Your task to perform on an android device: turn off location Image 0: 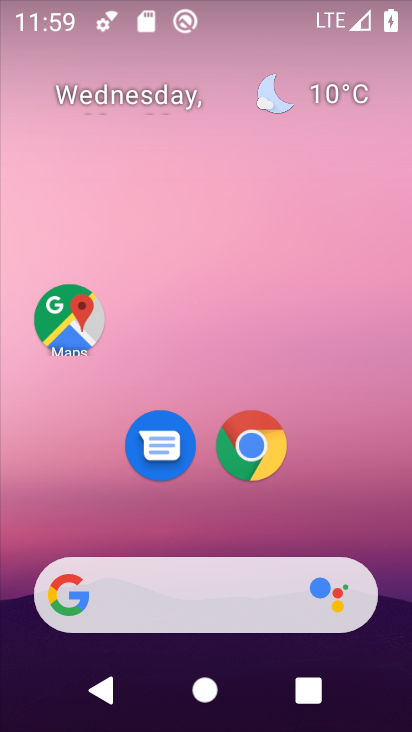
Step 0: drag from (186, 548) to (225, 99)
Your task to perform on an android device: turn off location Image 1: 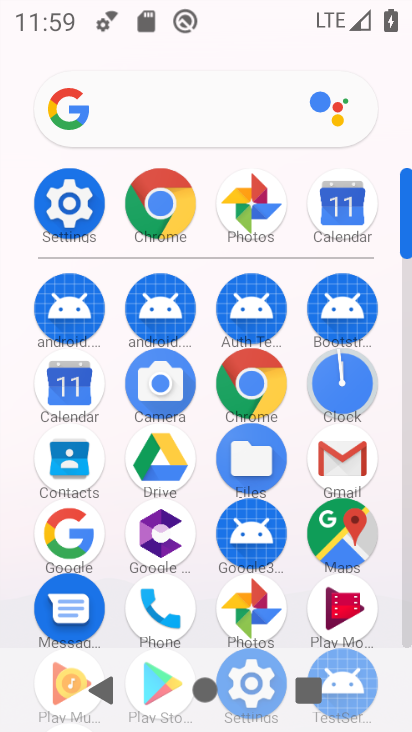
Step 1: click (74, 196)
Your task to perform on an android device: turn off location Image 2: 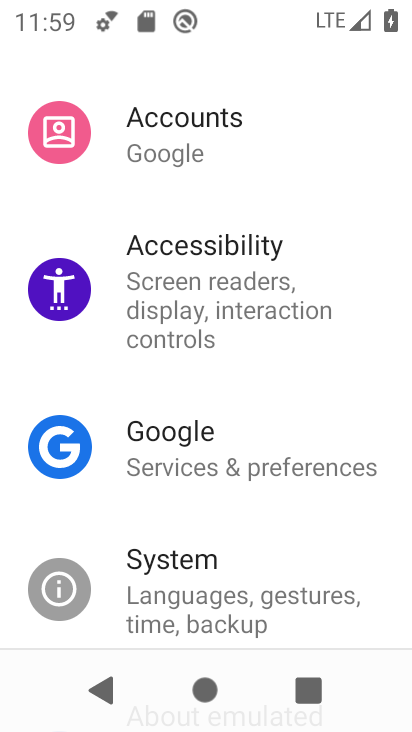
Step 2: drag from (191, 546) to (246, 95)
Your task to perform on an android device: turn off location Image 3: 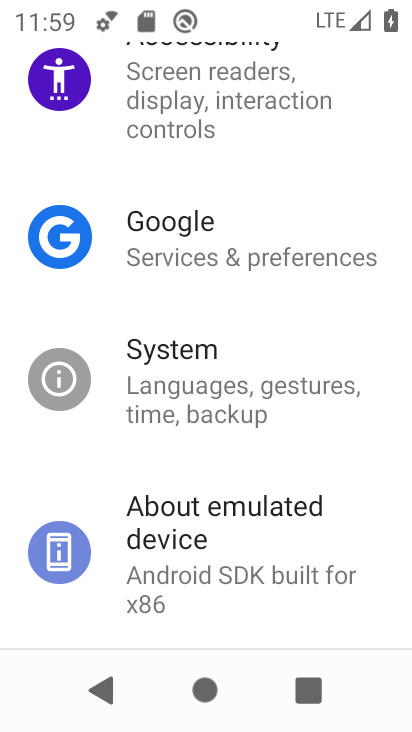
Step 3: drag from (257, 167) to (224, 692)
Your task to perform on an android device: turn off location Image 4: 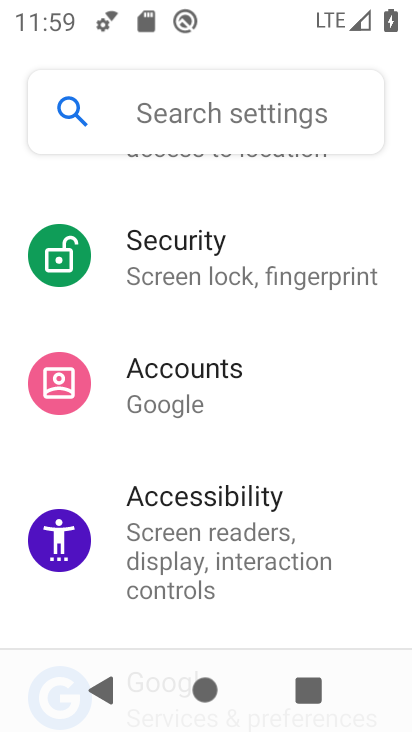
Step 4: drag from (197, 289) to (195, 680)
Your task to perform on an android device: turn off location Image 5: 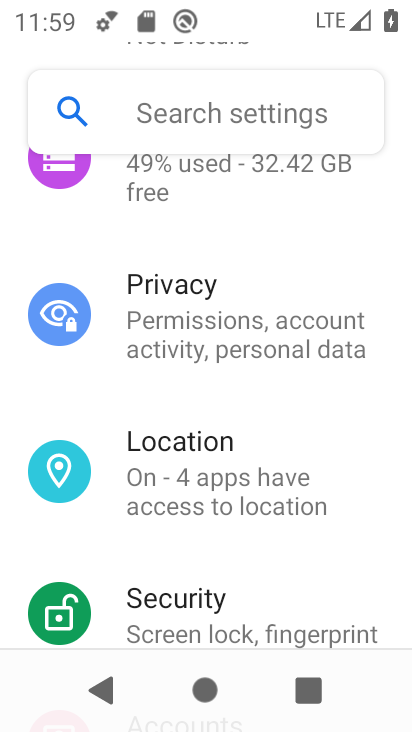
Step 5: click (167, 476)
Your task to perform on an android device: turn off location Image 6: 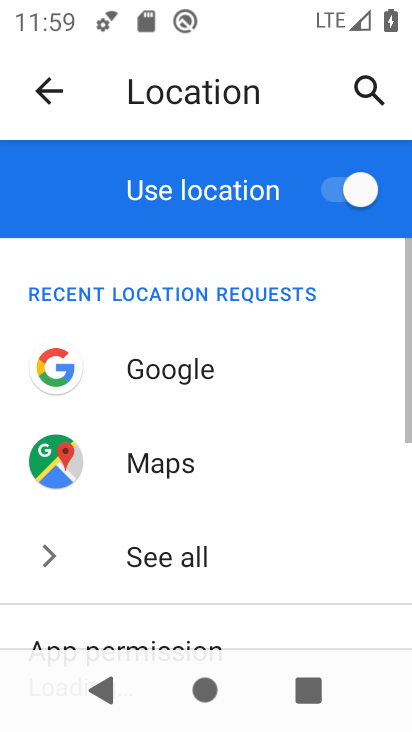
Step 6: click (354, 195)
Your task to perform on an android device: turn off location Image 7: 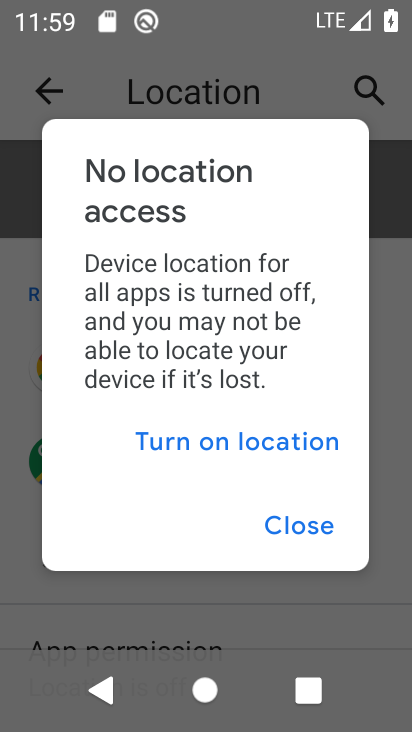
Step 7: task complete